Your task to perform on an android device: Open calendar and show me the fourth week of next month Image 0: 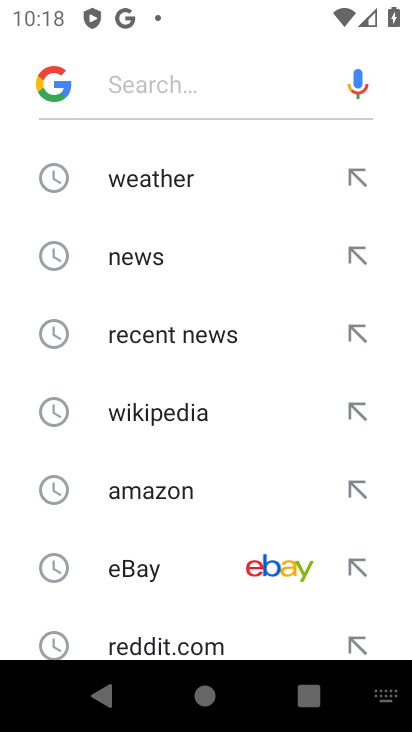
Step 0: press home button
Your task to perform on an android device: Open calendar and show me the fourth week of next month Image 1: 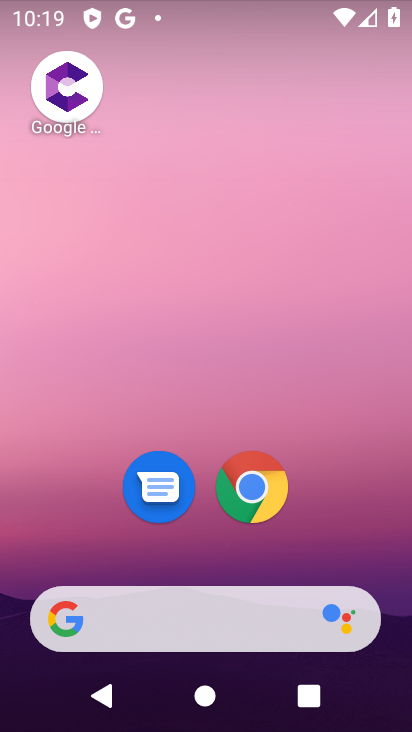
Step 1: drag from (362, 523) to (352, 7)
Your task to perform on an android device: Open calendar and show me the fourth week of next month Image 2: 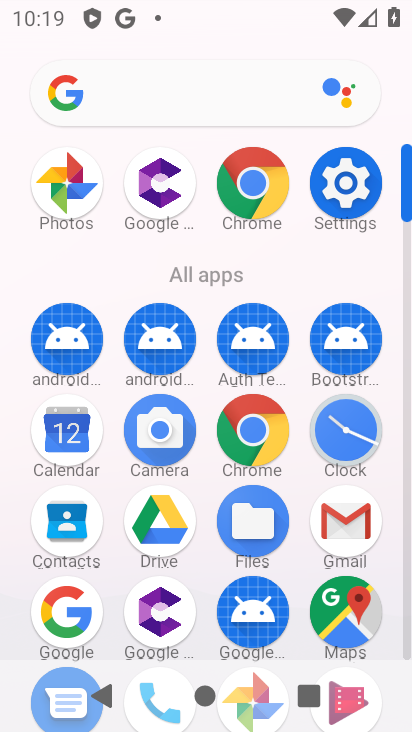
Step 2: click (72, 431)
Your task to perform on an android device: Open calendar and show me the fourth week of next month Image 3: 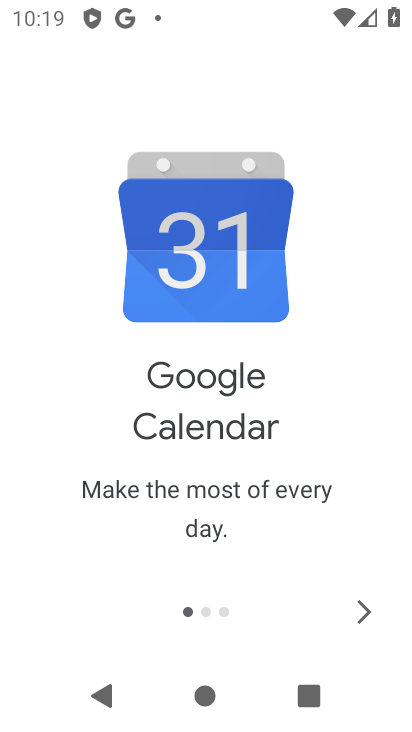
Step 3: click (360, 618)
Your task to perform on an android device: Open calendar and show me the fourth week of next month Image 4: 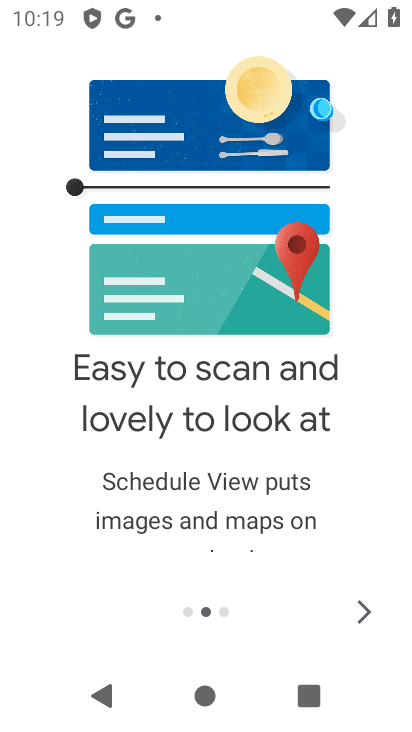
Step 4: click (360, 618)
Your task to perform on an android device: Open calendar and show me the fourth week of next month Image 5: 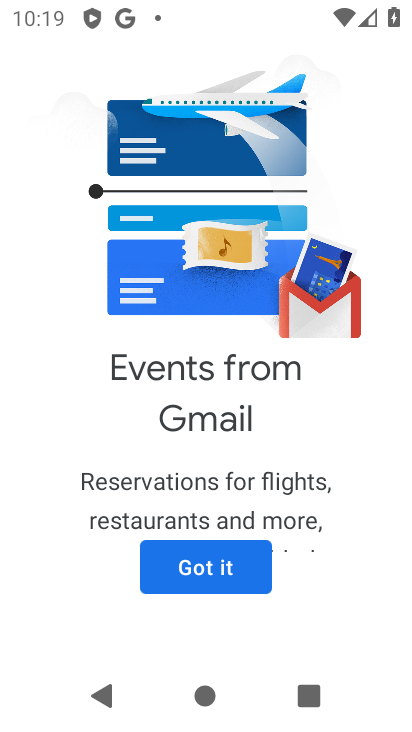
Step 5: click (201, 575)
Your task to perform on an android device: Open calendar and show me the fourth week of next month Image 6: 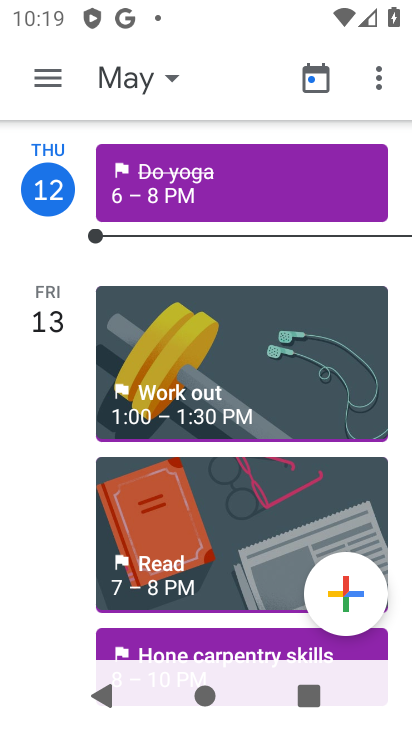
Step 6: click (168, 79)
Your task to perform on an android device: Open calendar and show me the fourth week of next month Image 7: 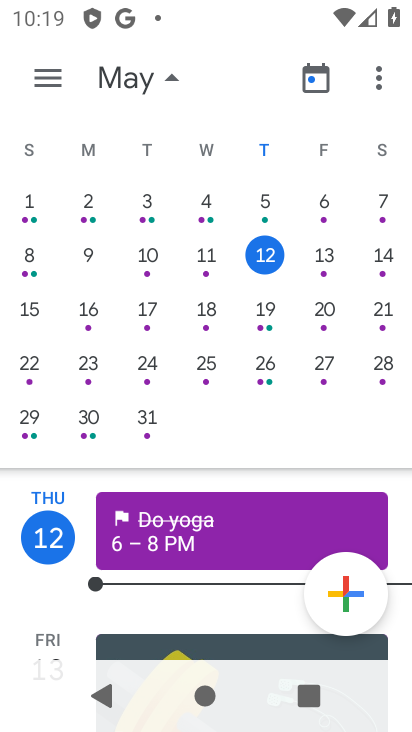
Step 7: drag from (375, 311) to (30, 231)
Your task to perform on an android device: Open calendar and show me the fourth week of next month Image 8: 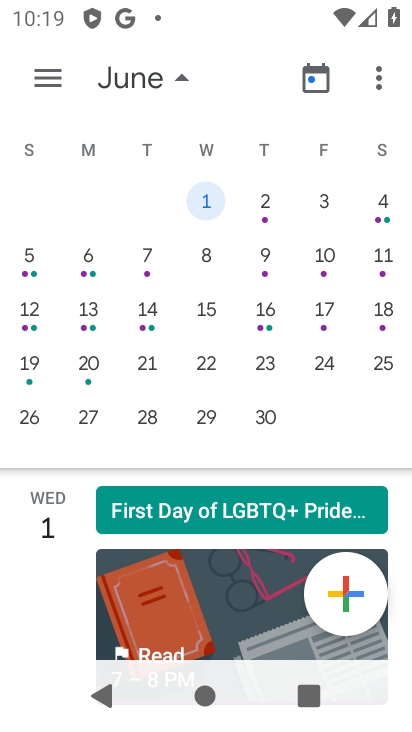
Step 8: click (50, 80)
Your task to perform on an android device: Open calendar and show me the fourth week of next month Image 9: 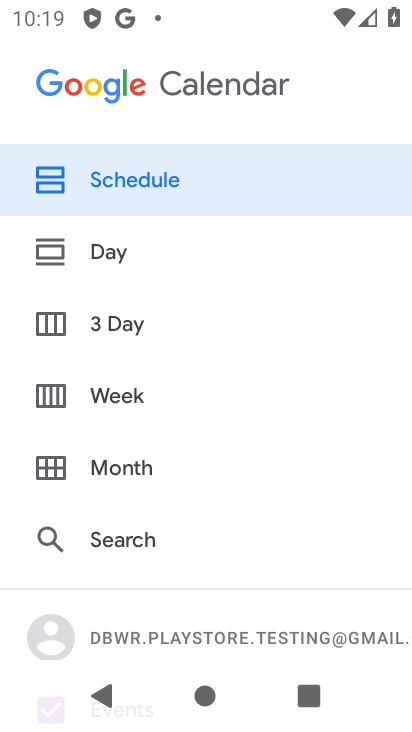
Step 9: click (106, 405)
Your task to perform on an android device: Open calendar and show me the fourth week of next month Image 10: 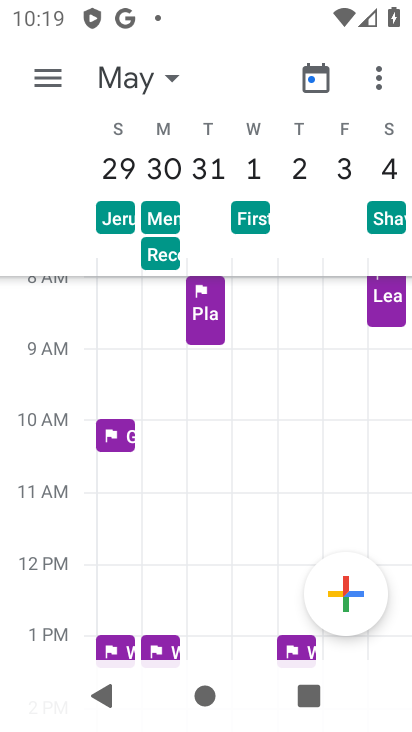
Step 10: task complete